Your task to perform on an android device: Go to privacy settings Image 0: 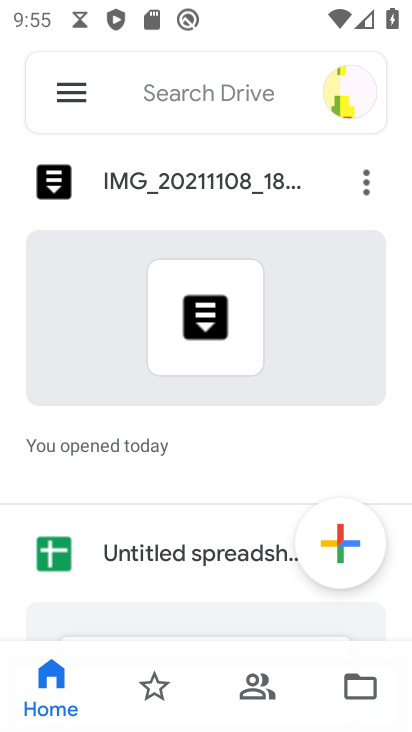
Step 0: press home button
Your task to perform on an android device: Go to privacy settings Image 1: 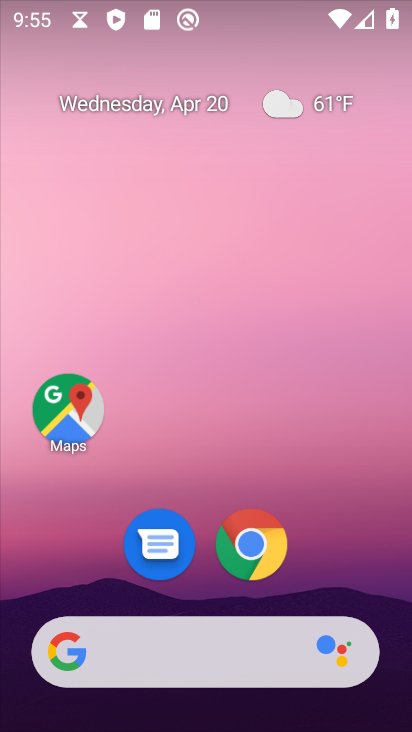
Step 1: drag from (153, 641) to (290, 25)
Your task to perform on an android device: Go to privacy settings Image 2: 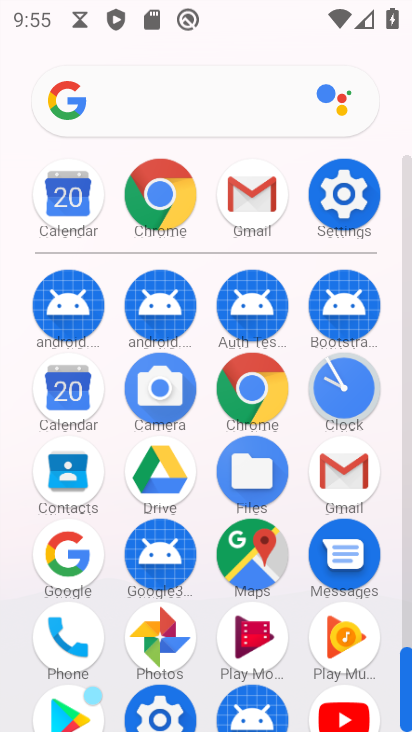
Step 2: click (348, 200)
Your task to perform on an android device: Go to privacy settings Image 3: 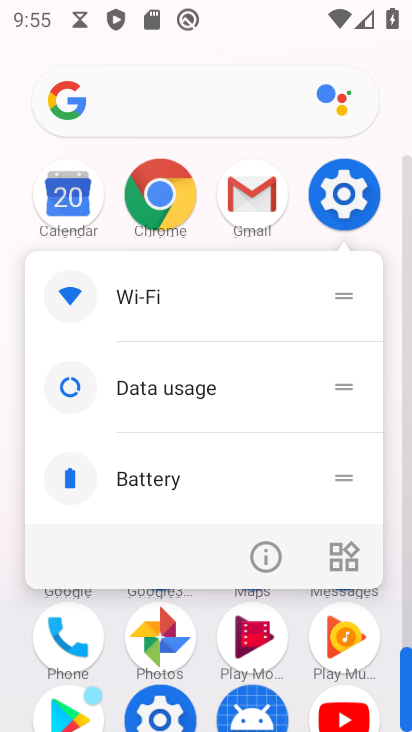
Step 3: click (342, 202)
Your task to perform on an android device: Go to privacy settings Image 4: 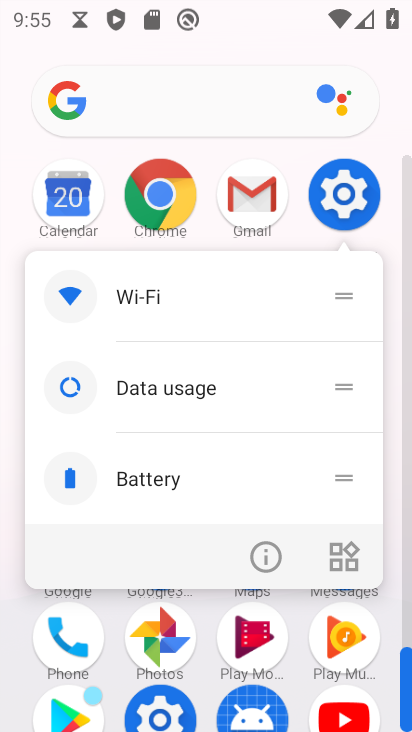
Step 4: click (348, 187)
Your task to perform on an android device: Go to privacy settings Image 5: 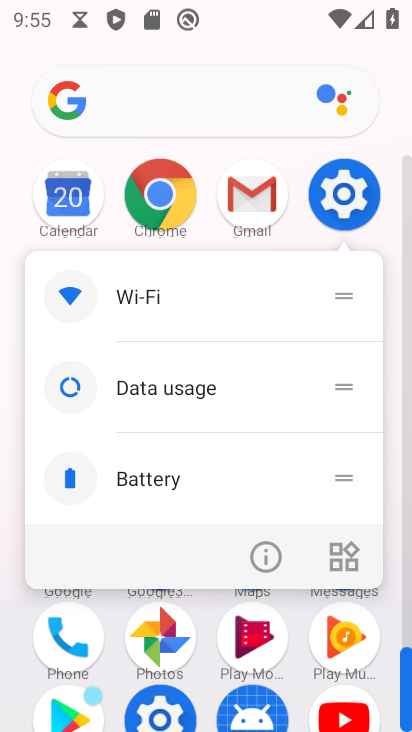
Step 5: click (339, 192)
Your task to perform on an android device: Go to privacy settings Image 6: 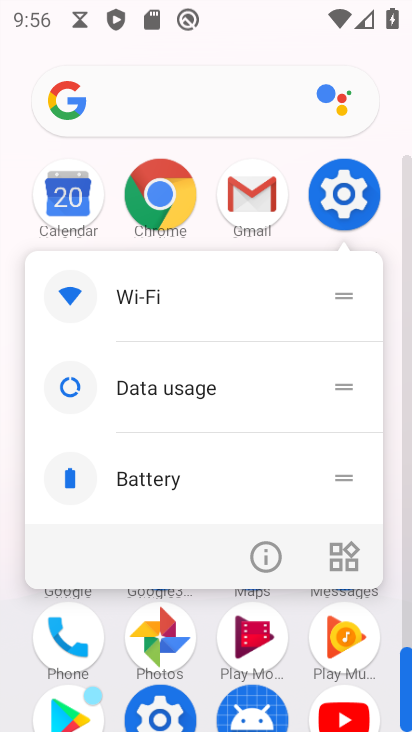
Step 6: click (348, 198)
Your task to perform on an android device: Go to privacy settings Image 7: 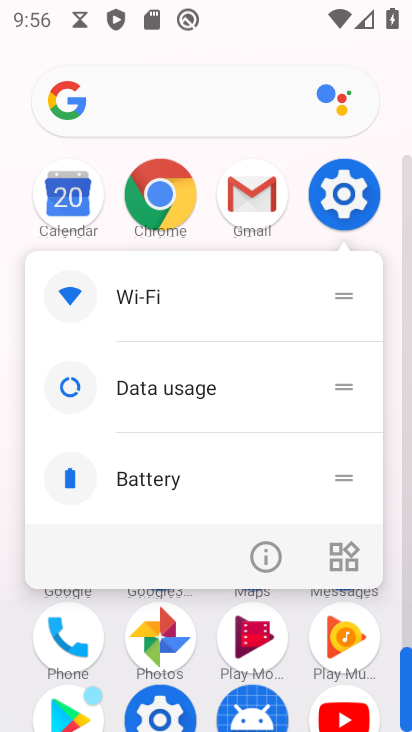
Step 7: click (347, 189)
Your task to perform on an android device: Go to privacy settings Image 8: 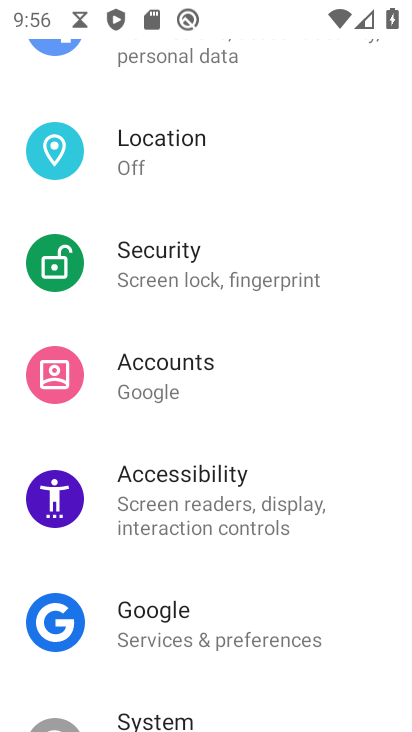
Step 8: drag from (254, 133) to (297, 506)
Your task to perform on an android device: Go to privacy settings Image 9: 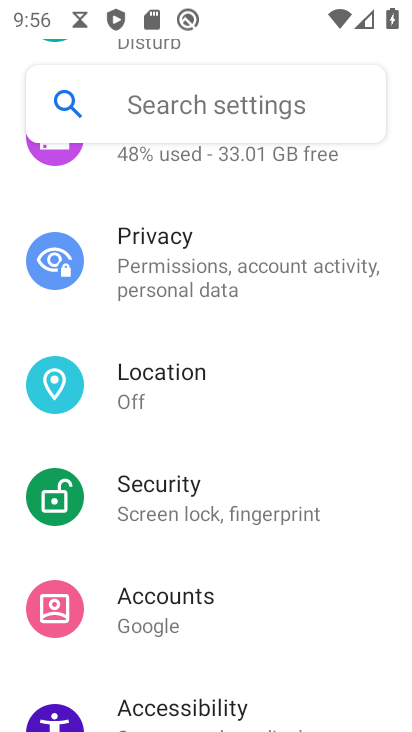
Step 9: click (169, 235)
Your task to perform on an android device: Go to privacy settings Image 10: 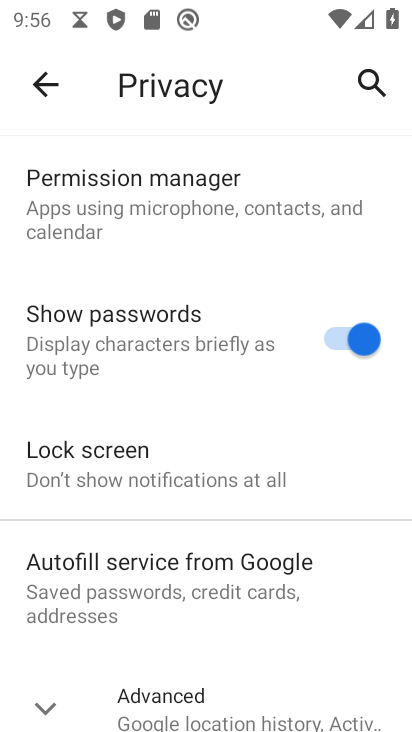
Step 10: task complete